Your task to perform on an android device: What's the weather going to be this weekend? Image 0: 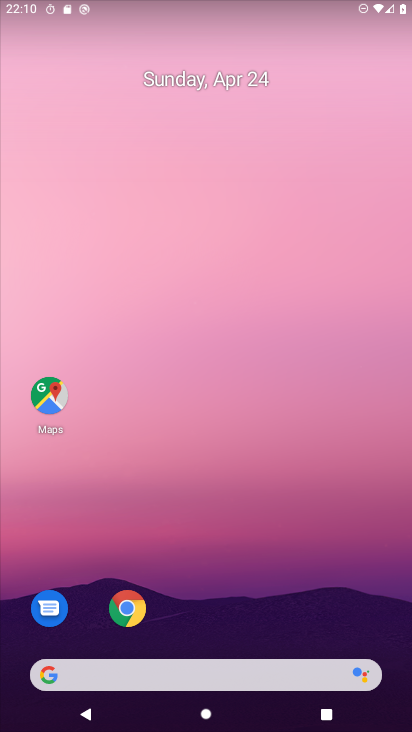
Step 0: click (205, 668)
Your task to perform on an android device: What's the weather going to be this weekend? Image 1: 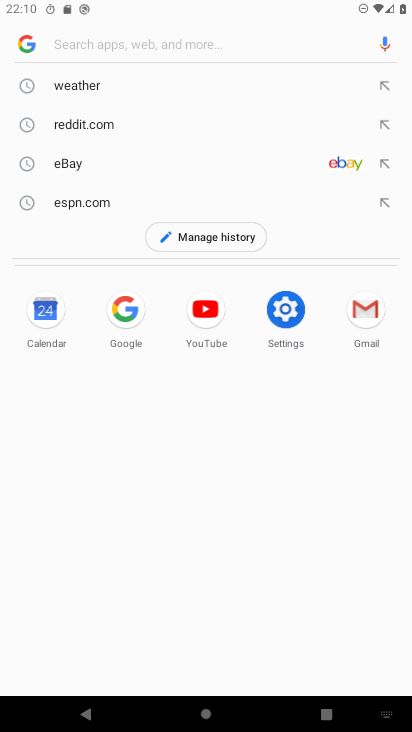
Step 1: click (27, 45)
Your task to perform on an android device: What's the weather going to be this weekend? Image 2: 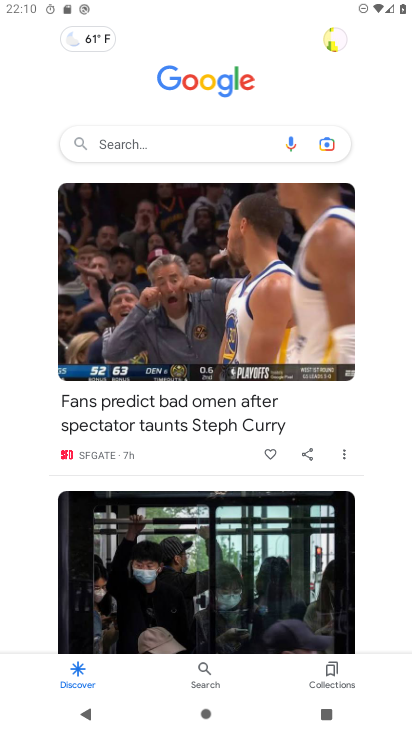
Step 2: click (95, 26)
Your task to perform on an android device: What's the weather going to be this weekend? Image 3: 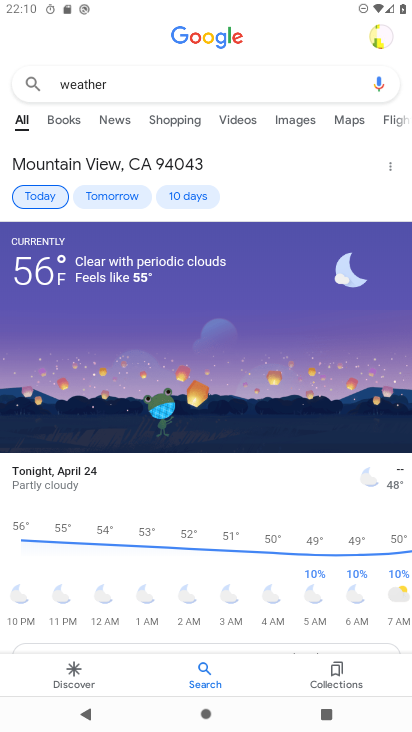
Step 3: click (177, 183)
Your task to perform on an android device: What's the weather going to be this weekend? Image 4: 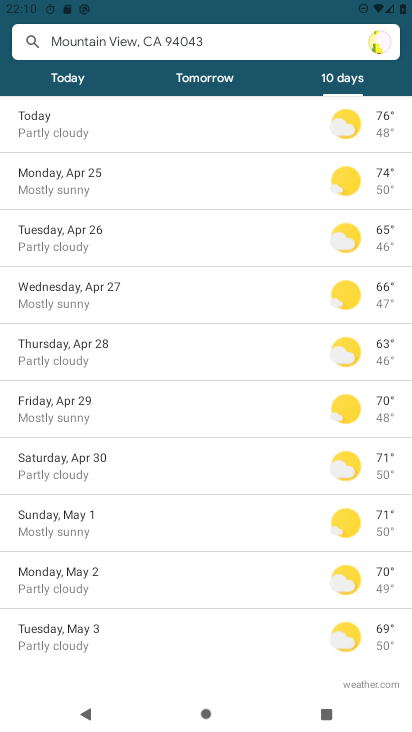
Step 4: click (168, 473)
Your task to perform on an android device: What's the weather going to be this weekend? Image 5: 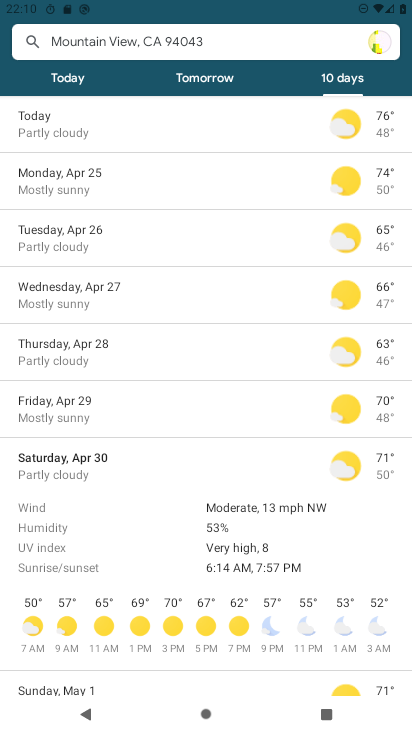
Step 5: task complete